Your task to perform on an android device: Do I have any events tomorrow? Image 0: 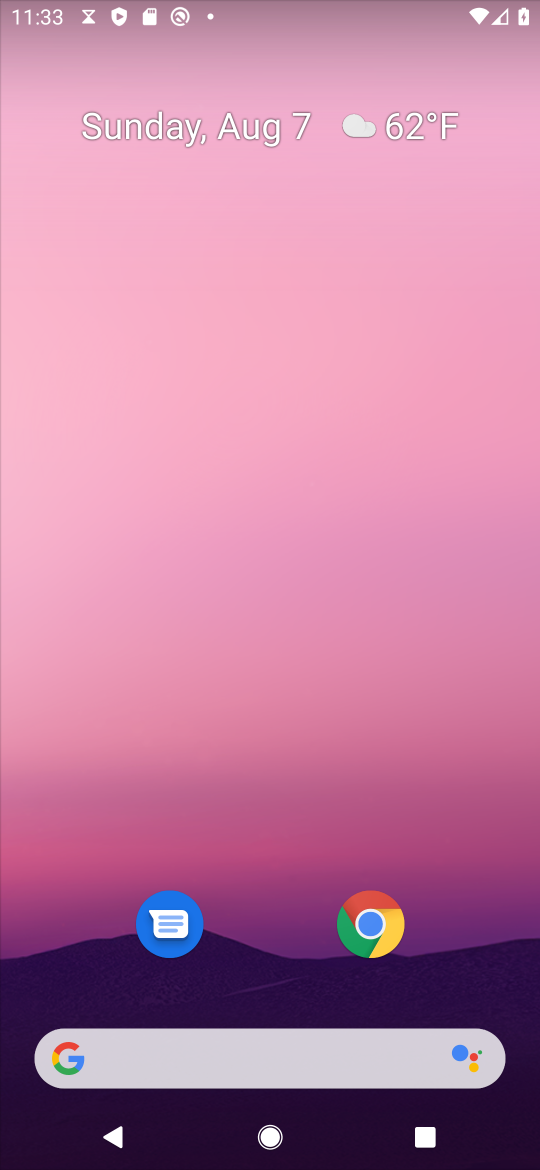
Step 0: drag from (270, 1042) to (262, 349)
Your task to perform on an android device: Do I have any events tomorrow? Image 1: 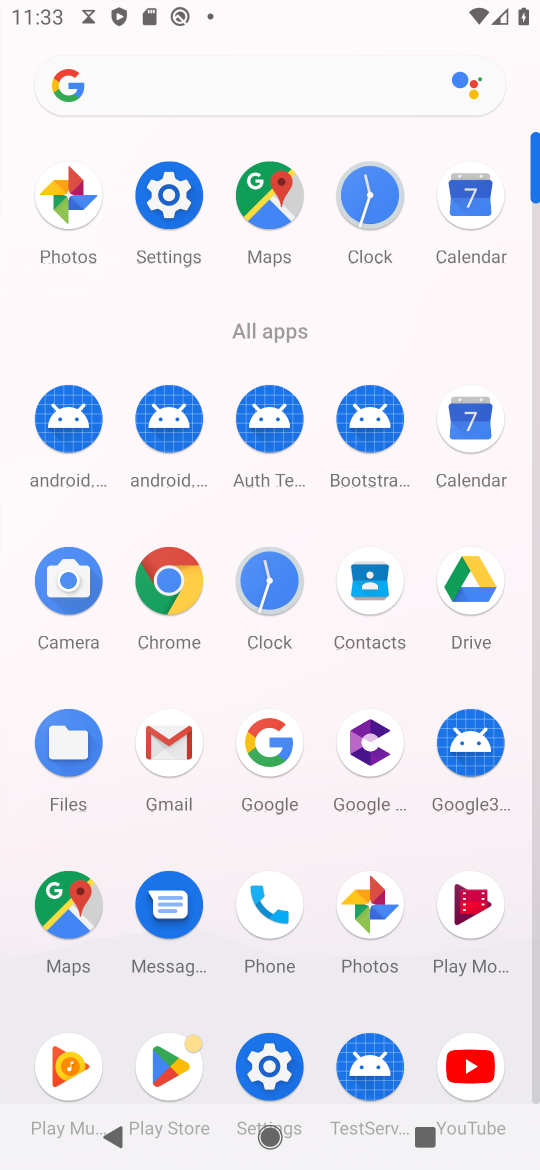
Step 1: click (465, 435)
Your task to perform on an android device: Do I have any events tomorrow? Image 2: 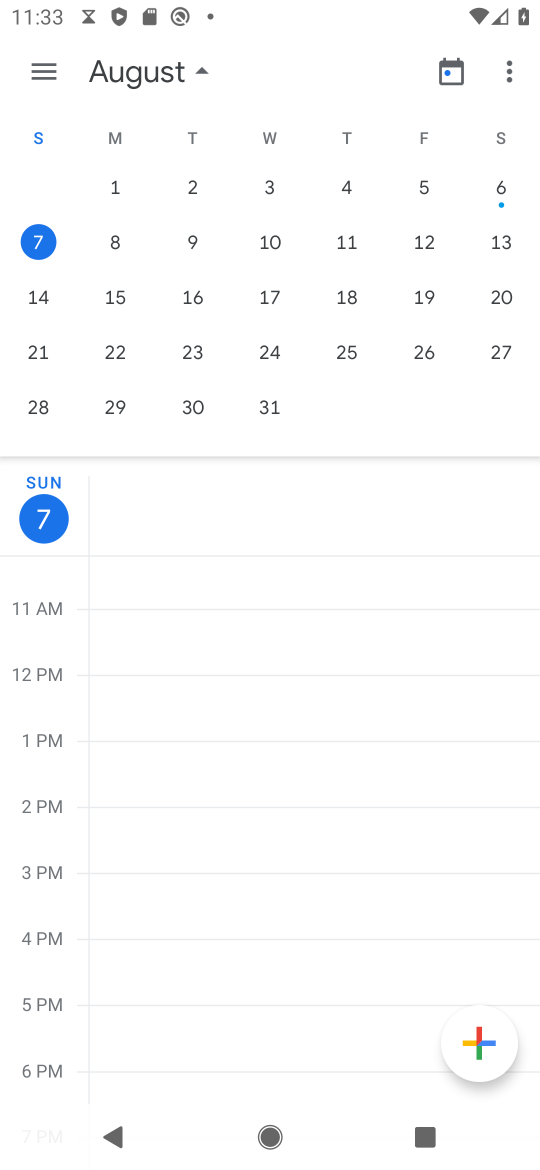
Step 2: click (111, 237)
Your task to perform on an android device: Do I have any events tomorrow? Image 3: 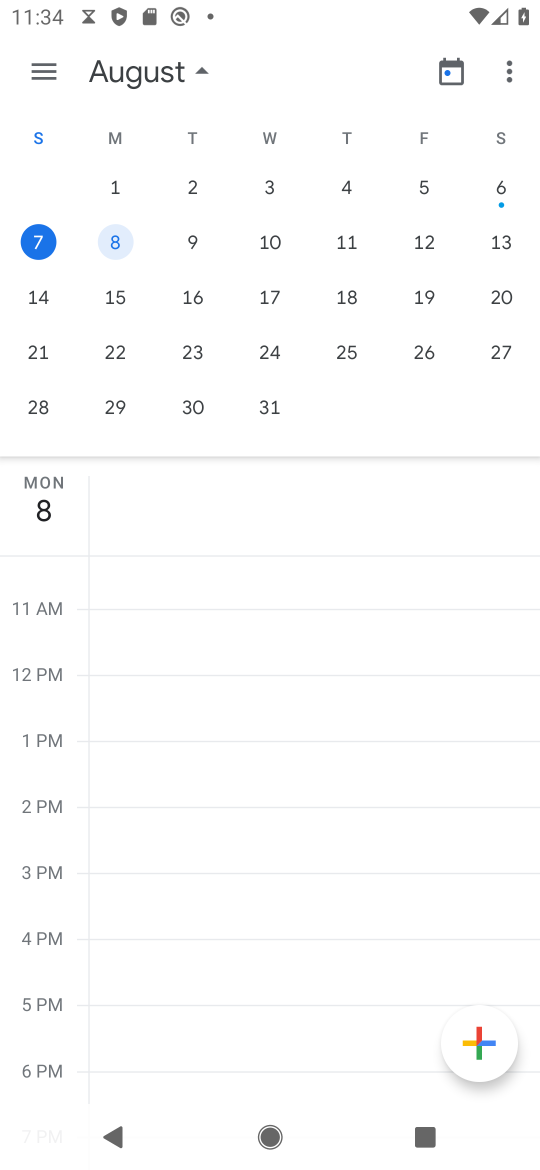
Step 3: task complete